Your task to perform on an android device: turn off location history Image 0: 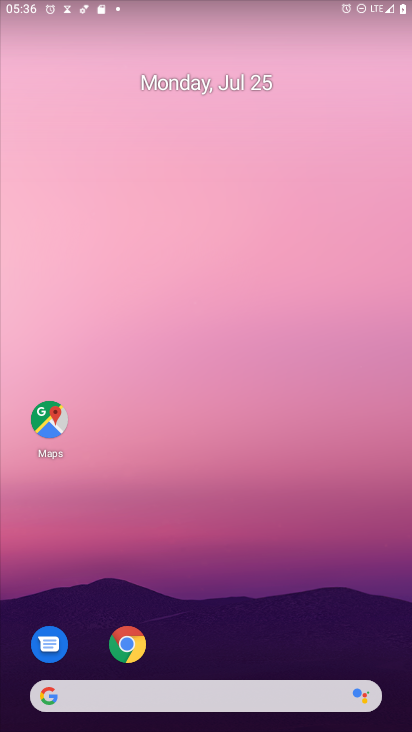
Step 0: drag from (273, 639) to (317, 160)
Your task to perform on an android device: turn off location history Image 1: 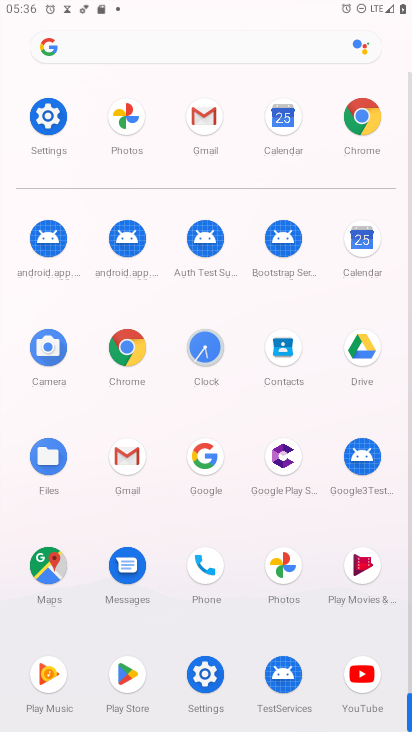
Step 1: click (48, 115)
Your task to perform on an android device: turn off location history Image 2: 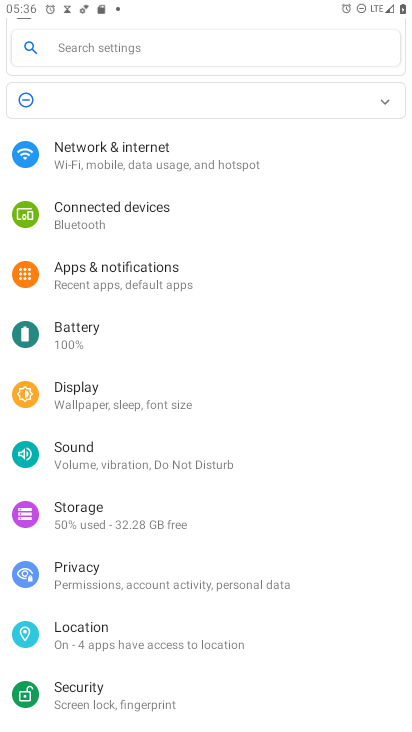
Step 2: click (91, 650)
Your task to perform on an android device: turn off location history Image 3: 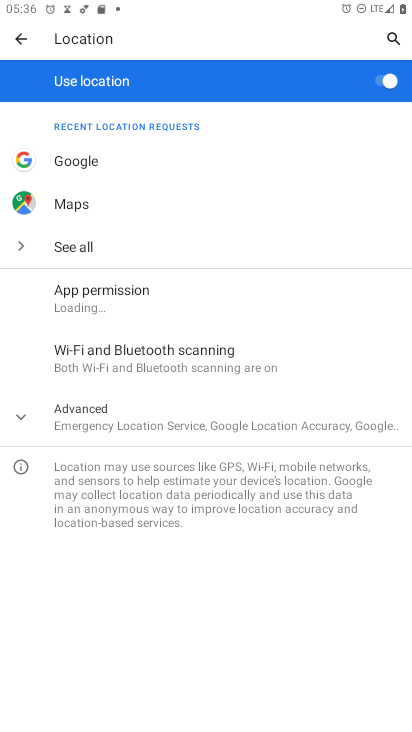
Step 3: click (86, 423)
Your task to perform on an android device: turn off location history Image 4: 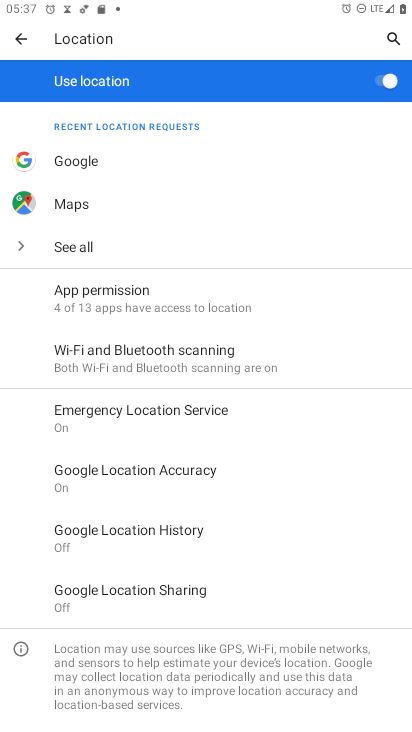
Step 4: click (152, 534)
Your task to perform on an android device: turn off location history Image 5: 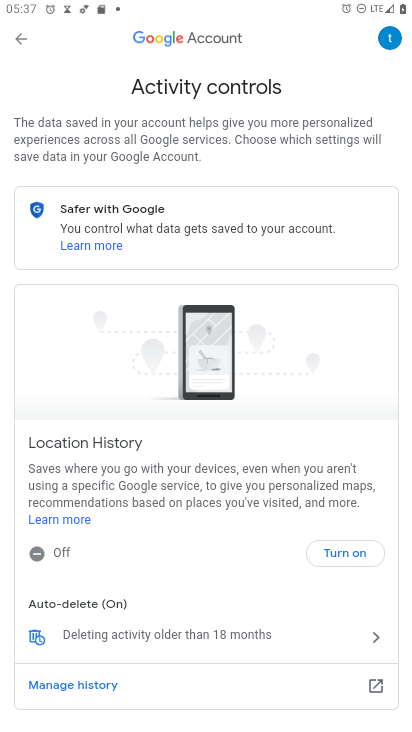
Step 5: task complete